Your task to perform on an android device: move an email to a new category in the gmail app Image 0: 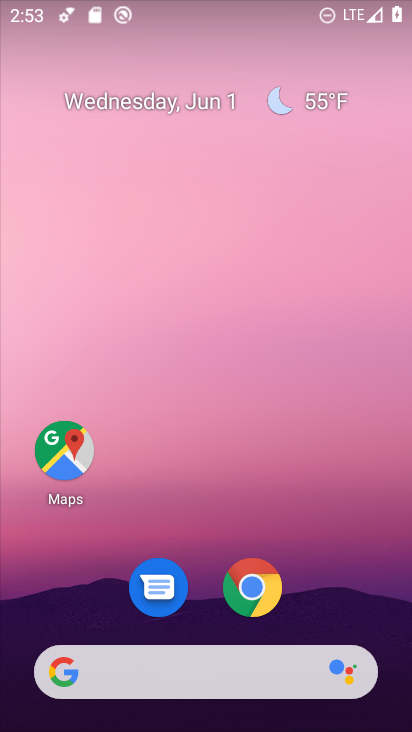
Step 0: drag from (176, 676) to (188, 187)
Your task to perform on an android device: move an email to a new category in the gmail app Image 1: 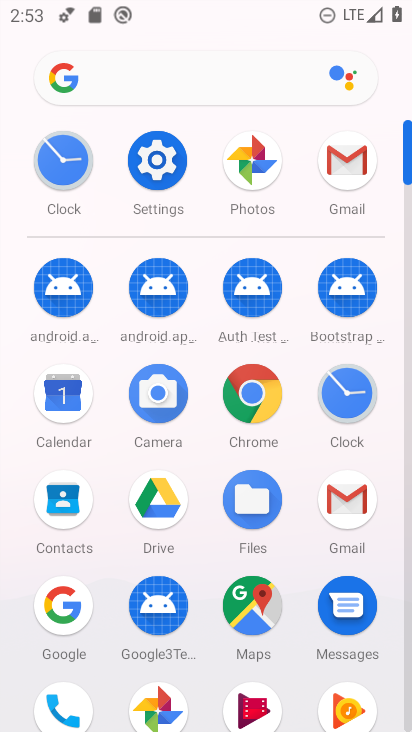
Step 1: click (330, 164)
Your task to perform on an android device: move an email to a new category in the gmail app Image 2: 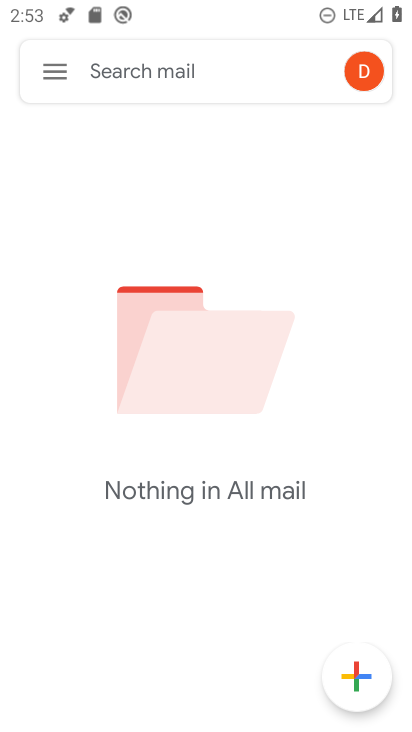
Step 2: click (55, 76)
Your task to perform on an android device: move an email to a new category in the gmail app Image 3: 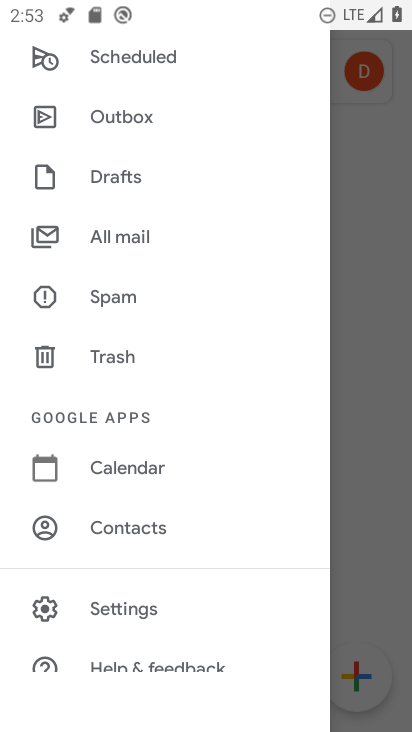
Step 3: click (118, 234)
Your task to perform on an android device: move an email to a new category in the gmail app Image 4: 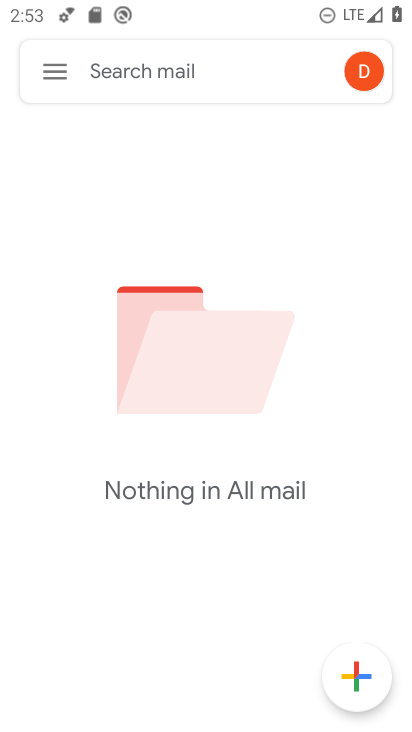
Step 4: task complete